Your task to perform on an android device: toggle notifications settings in the gmail app Image 0: 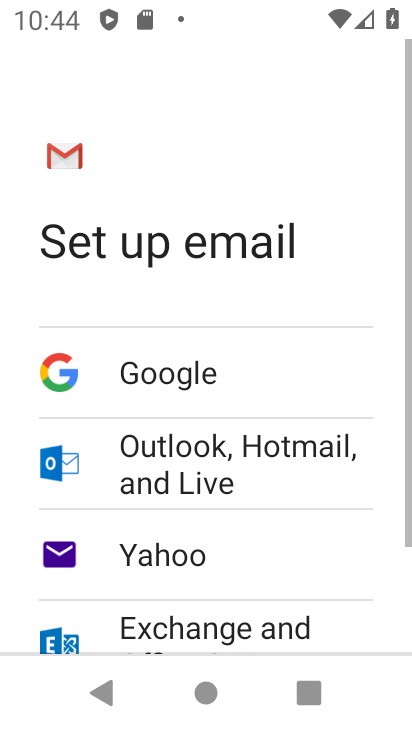
Step 0: press home button
Your task to perform on an android device: toggle notifications settings in the gmail app Image 1: 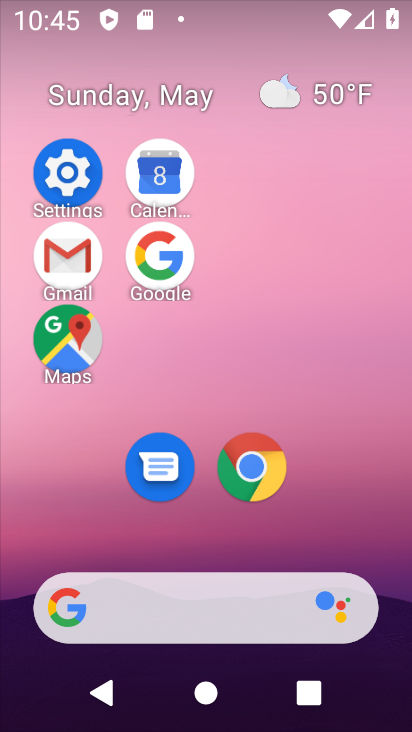
Step 1: click (94, 260)
Your task to perform on an android device: toggle notifications settings in the gmail app Image 2: 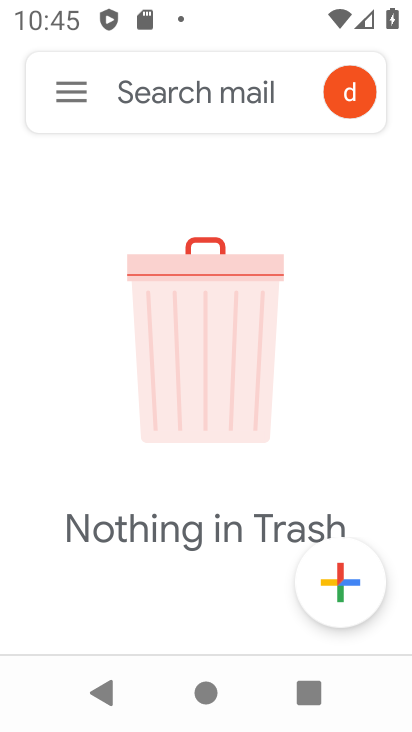
Step 2: click (58, 83)
Your task to perform on an android device: toggle notifications settings in the gmail app Image 3: 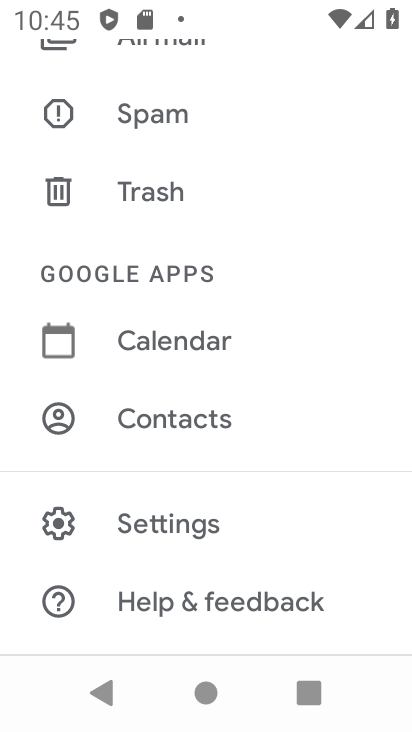
Step 3: click (192, 540)
Your task to perform on an android device: toggle notifications settings in the gmail app Image 4: 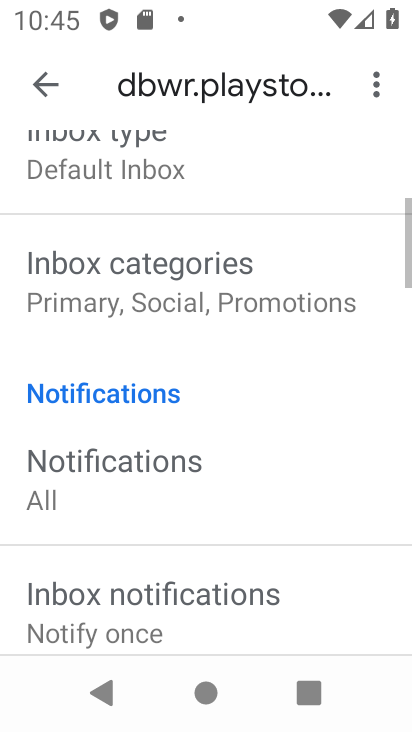
Step 4: click (205, 494)
Your task to perform on an android device: toggle notifications settings in the gmail app Image 5: 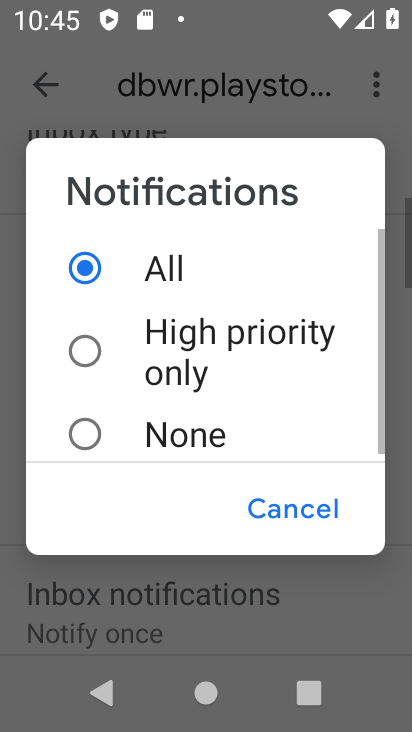
Step 5: click (167, 338)
Your task to perform on an android device: toggle notifications settings in the gmail app Image 6: 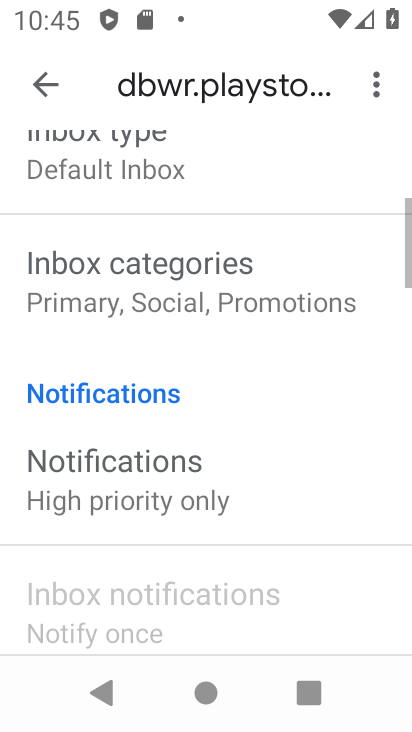
Step 6: task complete